Your task to perform on an android device: Open Yahoo.com Image 0: 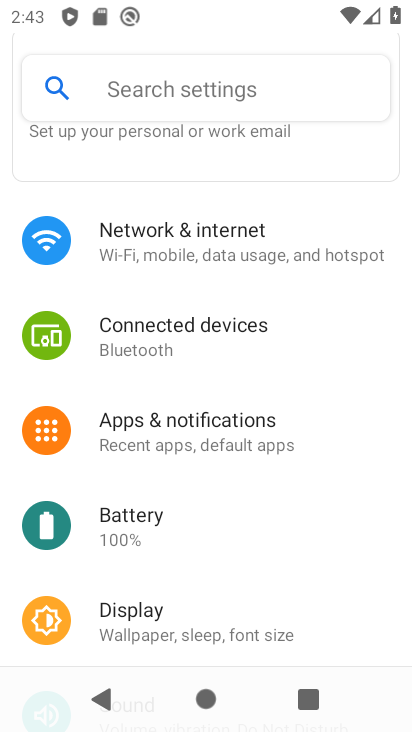
Step 0: press home button
Your task to perform on an android device: Open Yahoo.com Image 1: 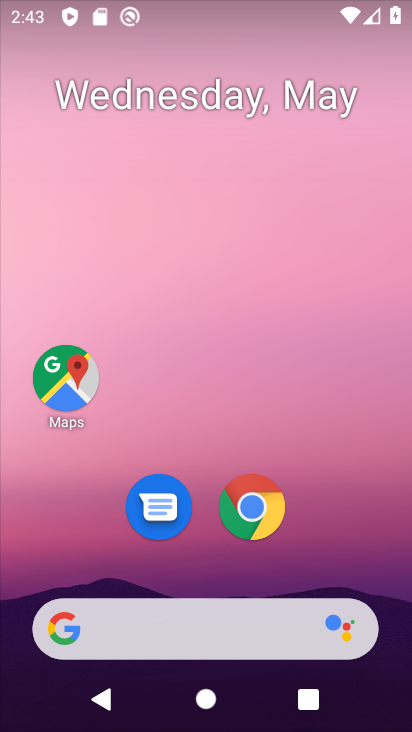
Step 1: drag from (202, 553) to (254, 127)
Your task to perform on an android device: Open Yahoo.com Image 2: 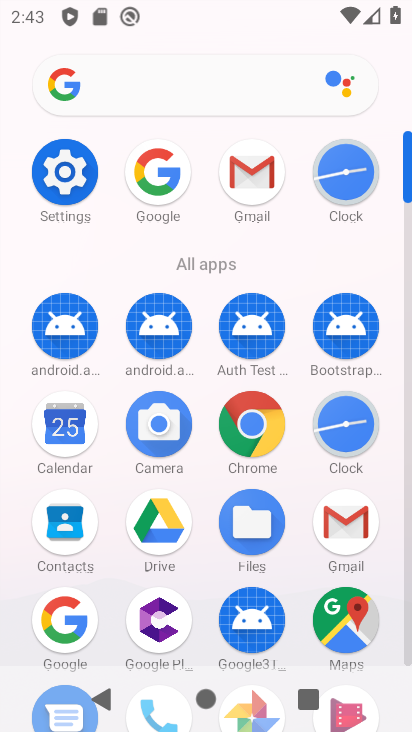
Step 2: click (254, 417)
Your task to perform on an android device: Open Yahoo.com Image 3: 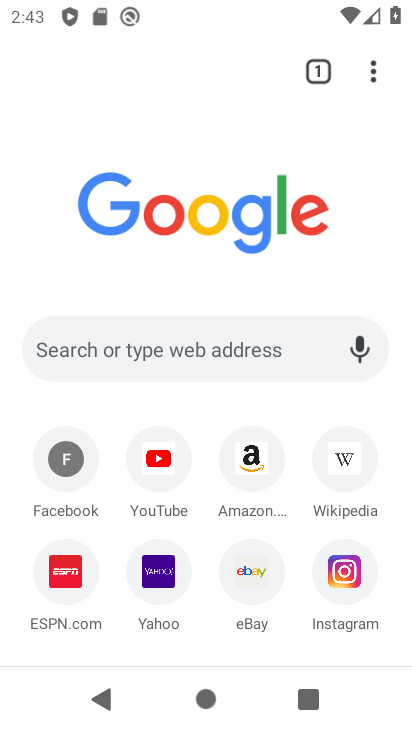
Step 3: click (150, 570)
Your task to perform on an android device: Open Yahoo.com Image 4: 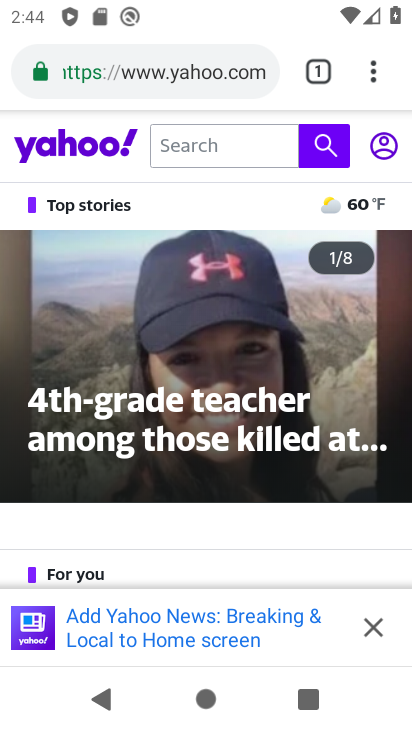
Step 4: task complete